Your task to perform on an android device: Go to calendar. Show me events next week Image 0: 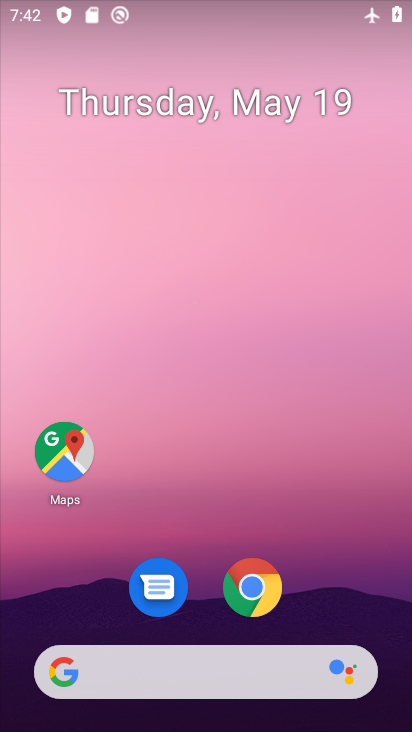
Step 0: drag from (196, 583) to (226, 240)
Your task to perform on an android device: Go to calendar. Show me events next week Image 1: 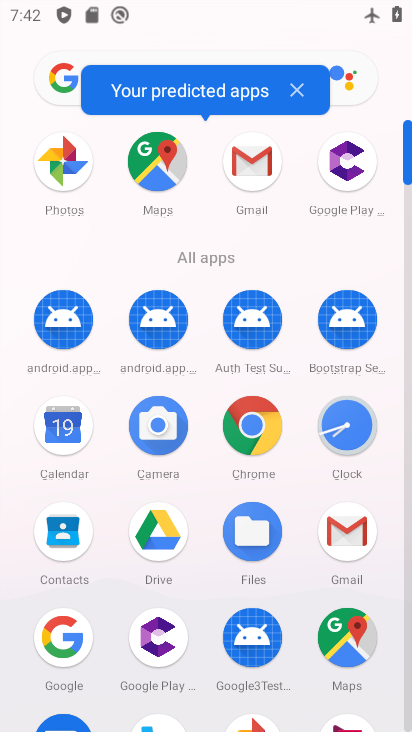
Step 1: click (73, 426)
Your task to perform on an android device: Go to calendar. Show me events next week Image 2: 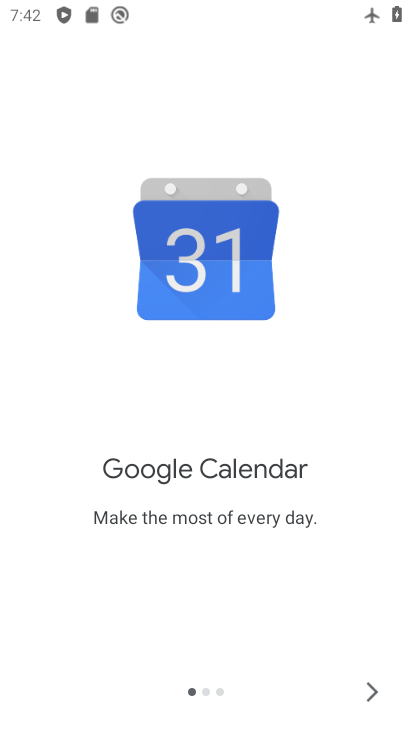
Step 2: click (371, 685)
Your task to perform on an android device: Go to calendar. Show me events next week Image 3: 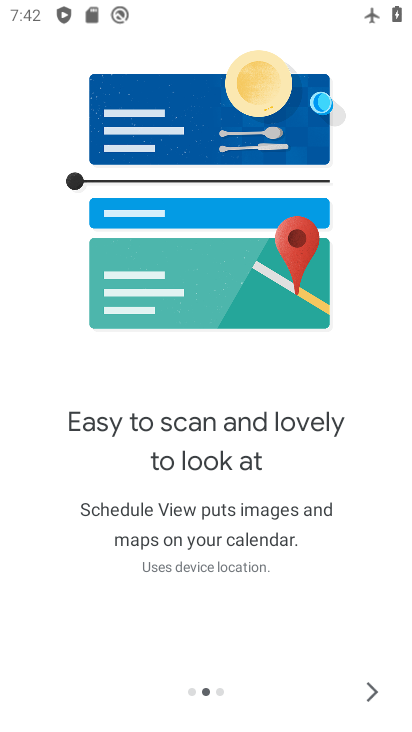
Step 3: click (371, 685)
Your task to perform on an android device: Go to calendar. Show me events next week Image 4: 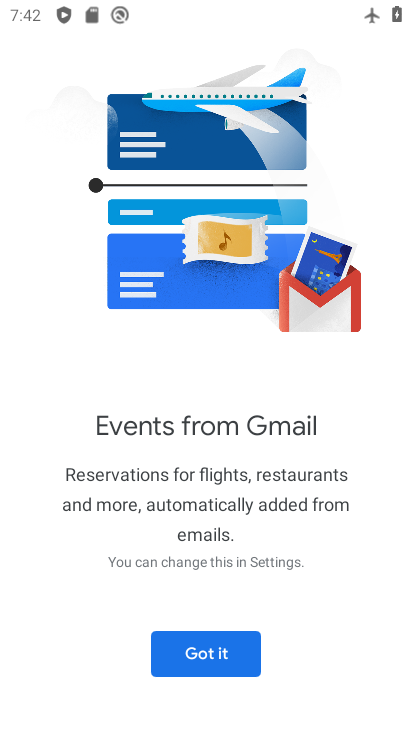
Step 4: click (243, 657)
Your task to perform on an android device: Go to calendar. Show me events next week Image 5: 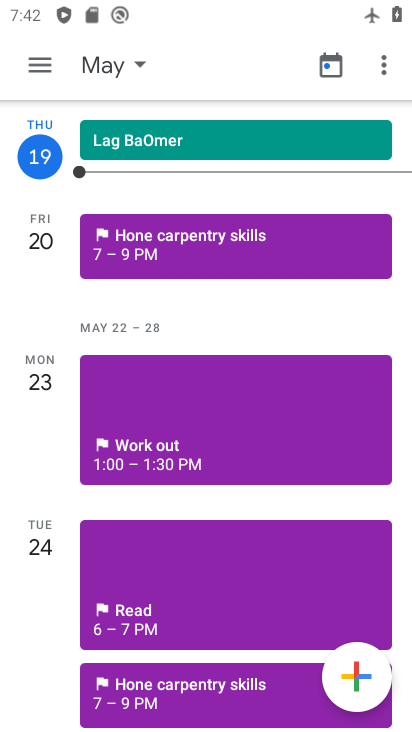
Step 5: click (134, 67)
Your task to perform on an android device: Go to calendar. Show me events next week Image 6: 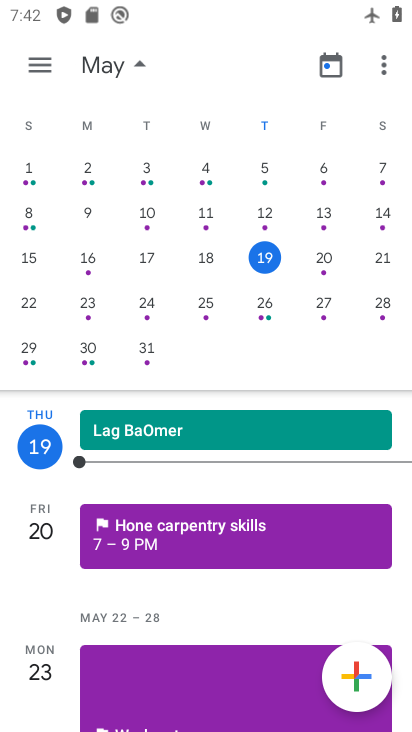
Step 6: click (41, 297)
Your task to perform on an android device: Go to calendar. Show me events next week Image 7: 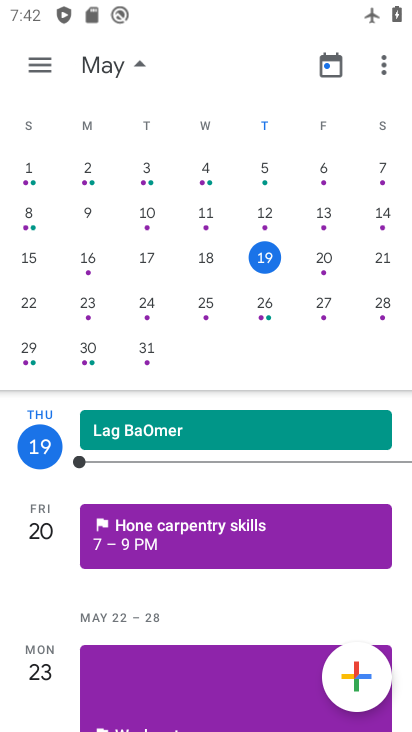
Step 7: click (96, 303)
Your task to perform on an android device: Go to calendar. Show me events next week Image 8: 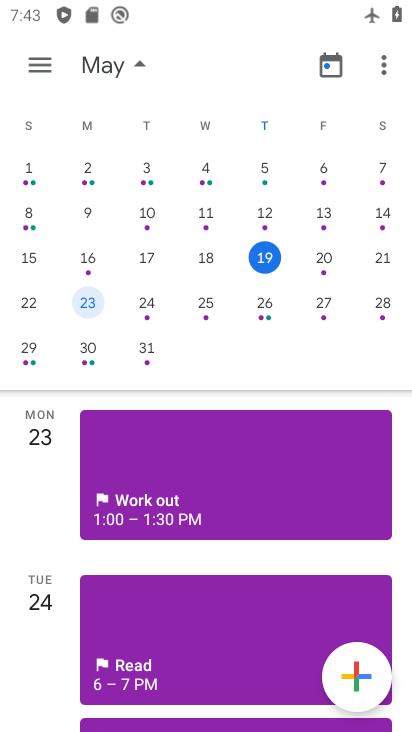
Step 8: click (142, 306)
Your task to perform on an android device: Go to calendar. Show me events next week Image 9: 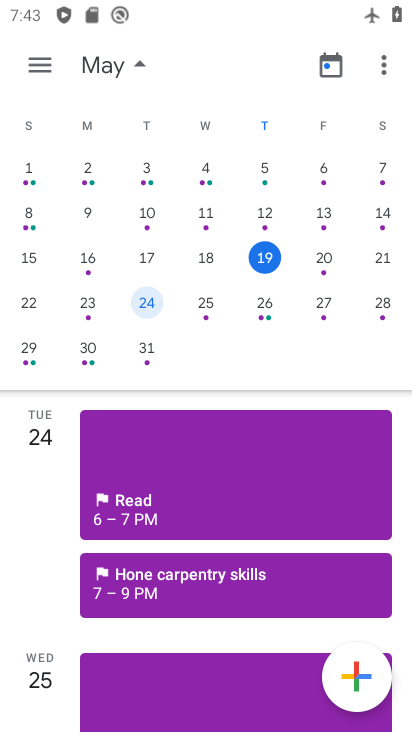
Step 9: click (203, 309)
Your task to perform on an android device: Go to calendar. Show me events next week Image 10: 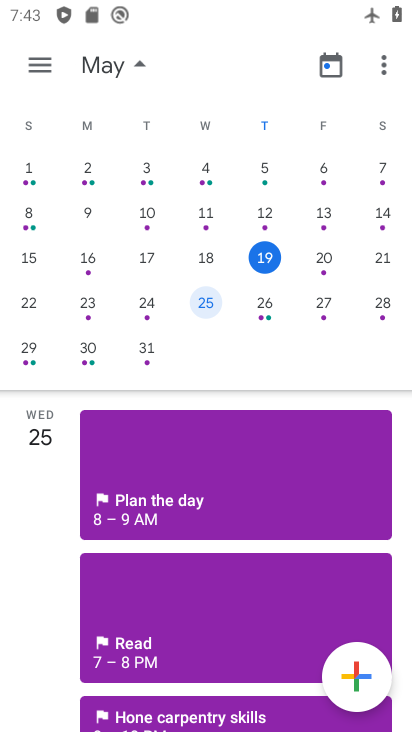
Step 10: click (251, 305)
Your task to perform on an android device: Go to calendar. Show me events next week Image 11: 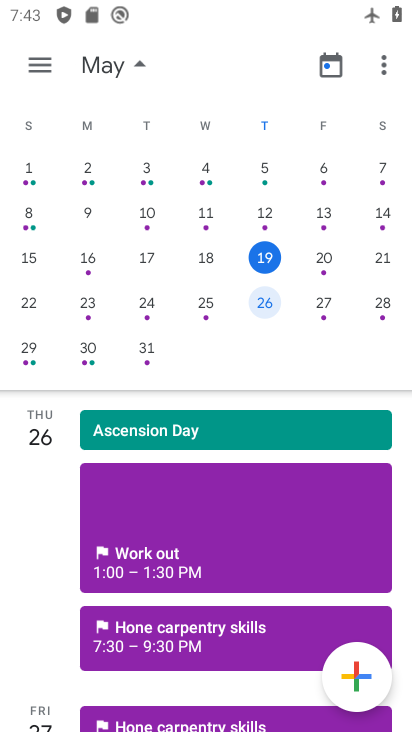
Step 11: click (325, 308)
Your task to perform on an android device: Go to calendar. Show me events next week Image 12: 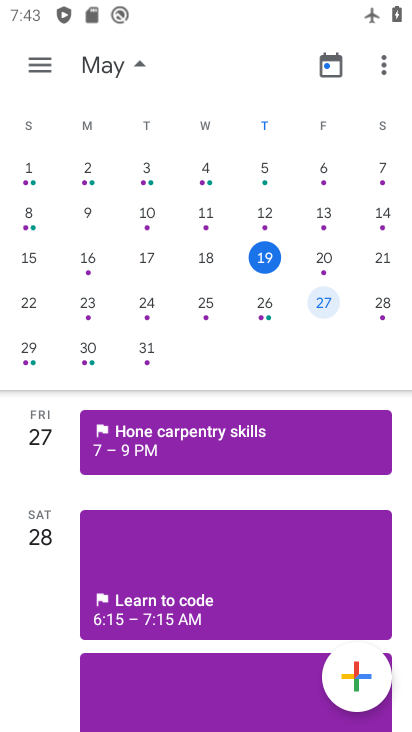
Step 12: click (370, 311)
Your task to perform on an android device: Go to calendar. Show me events next week Image 13: 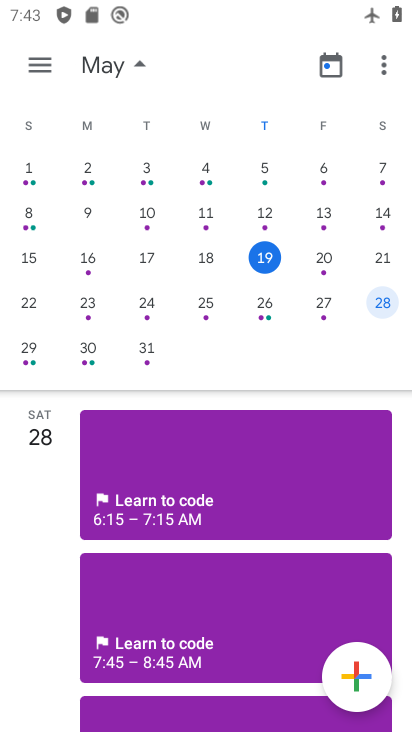
Step 13: task complete